Your task to perform on an android device: delete the emails in spam in the gmail app Image 0: 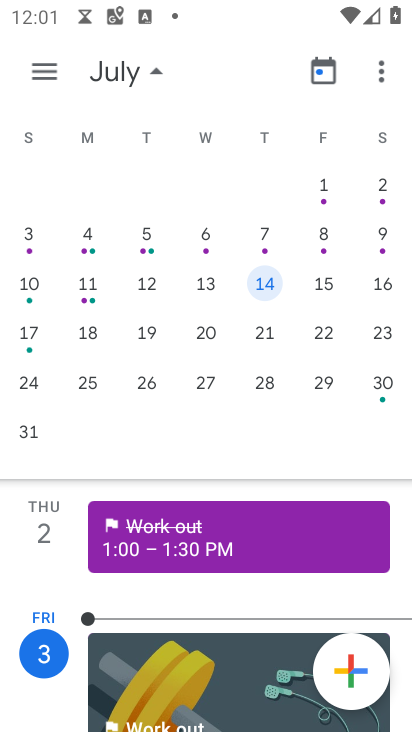
Step 0: press home button
Your task to perform on an android device: delete the emails in spam in the gmail app Image 1: 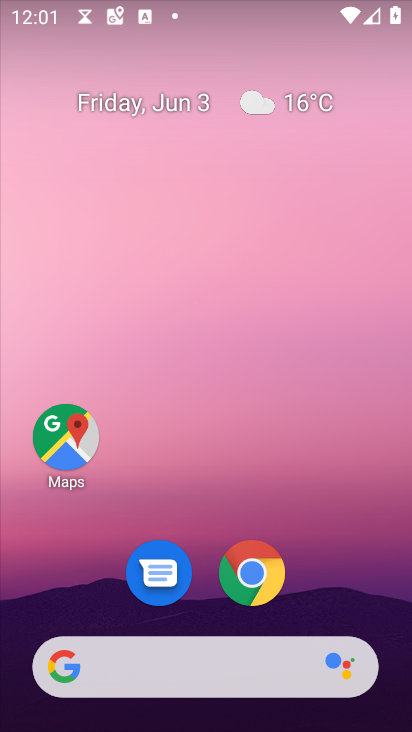
Step 1: drag from (345, 527) to (402, 523)
Your task to perform on an android device: delete the emails in spam in the gmail app Image 2: 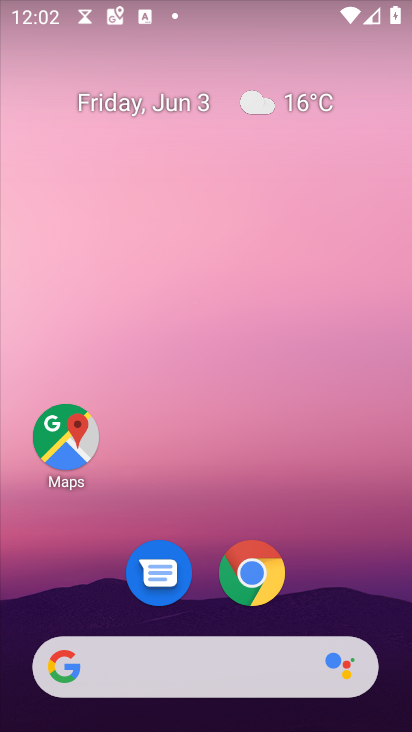
Step 2: drag from (382, 523) to (405, 5)
Your task to perform on an android device: delete the emails in spam in the gmail app Image 3: 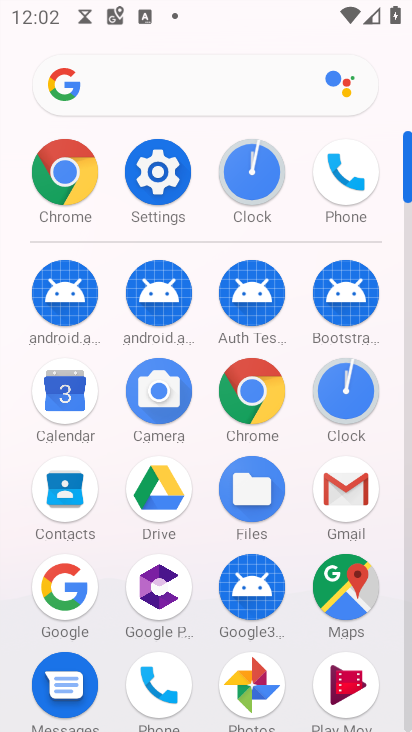
Step 3: click (353, 488)
Your task to perform on an android device: delete the emails in spam in the gmail app Image 4: 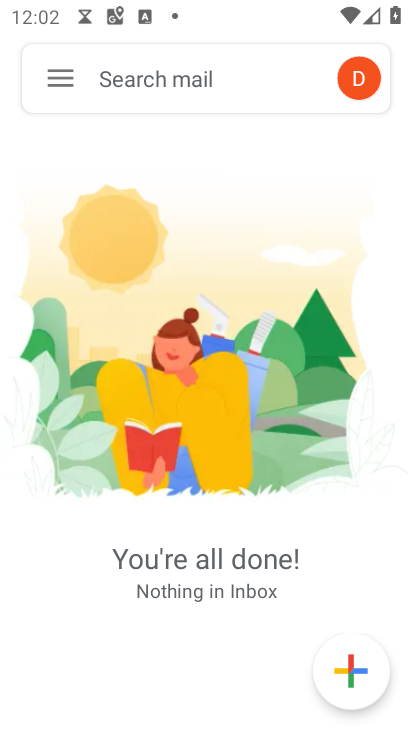
Step 4: click (63, 82)
Your task to perform on an android device: delete the emails in spam in the gmail app Image 5: 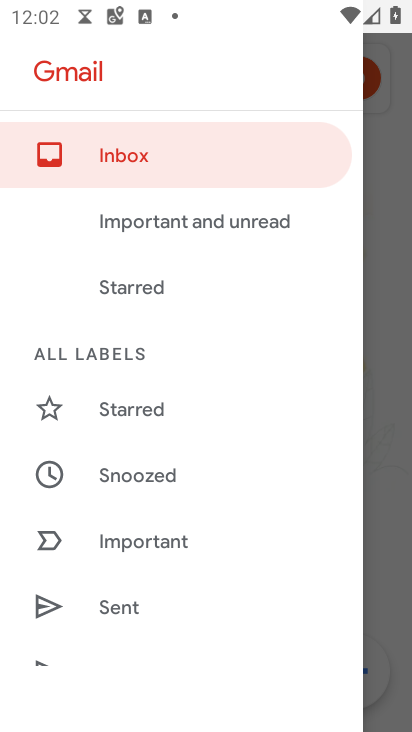
Step 5: drag from (145, 552) to (201, 99)
Your task to perform on an android device: delete the emails in spam in the gmail app Image 6: 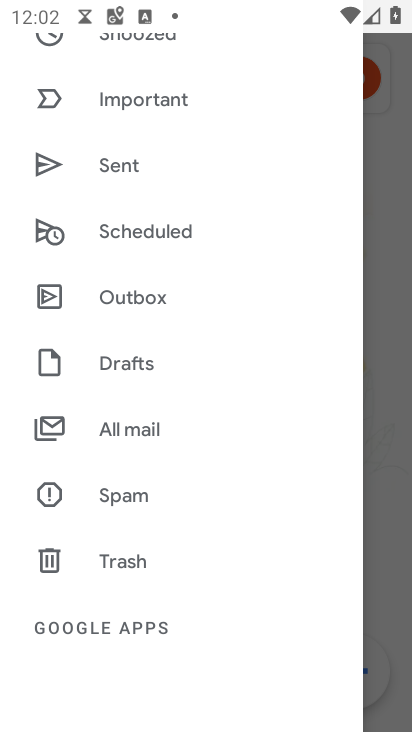
Step 6: click (134, 518)
Your task to perform on an android device: delete the emails in spam in the gmail app Image 7: 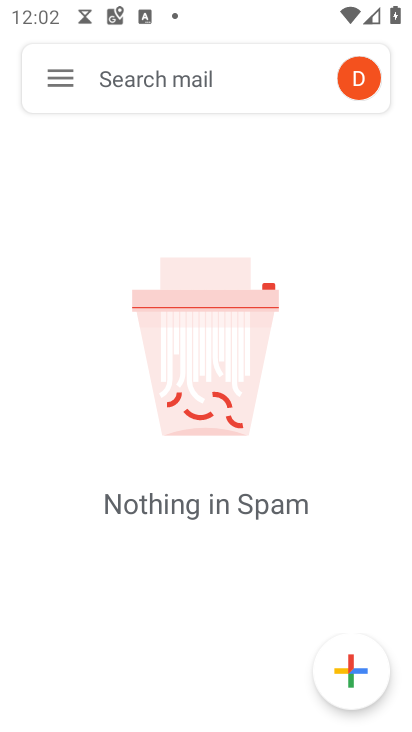
Step 7: task complete